Your task to perform on an android device: Play the last video I watched on Youtube Image 0: 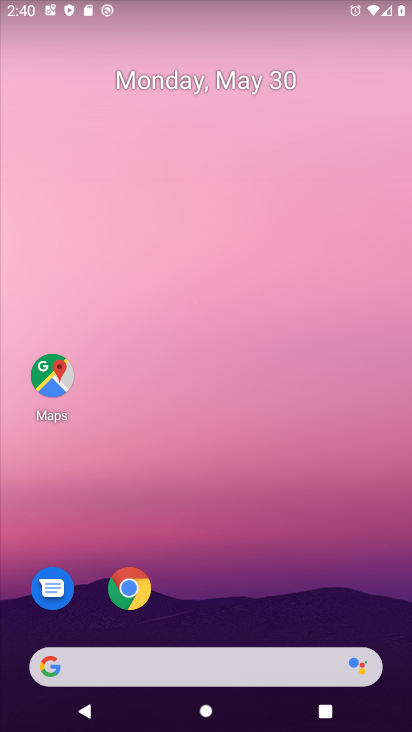
Step 0: drag from (271, 623) to (290, 34)
Your task to perform on an android device: Play the last video I watched on Youtube Image 1: 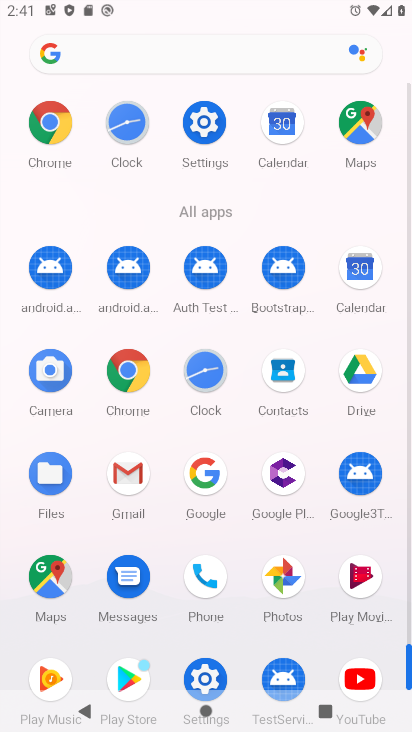
Step 1: drag from (255, 364) to (249, 56)
Your task to perform on an android device: Play the last video I watched on Youtube Image 2: 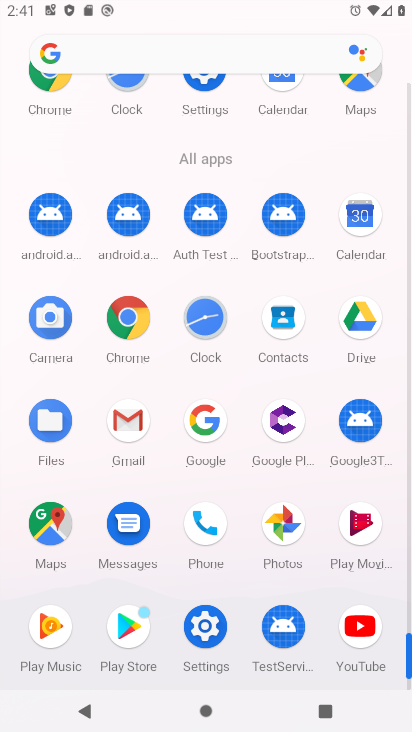
Step 2: click (353, 637)
Your task to perform on an android device: Play the last video I watched on Youtube Image 3: 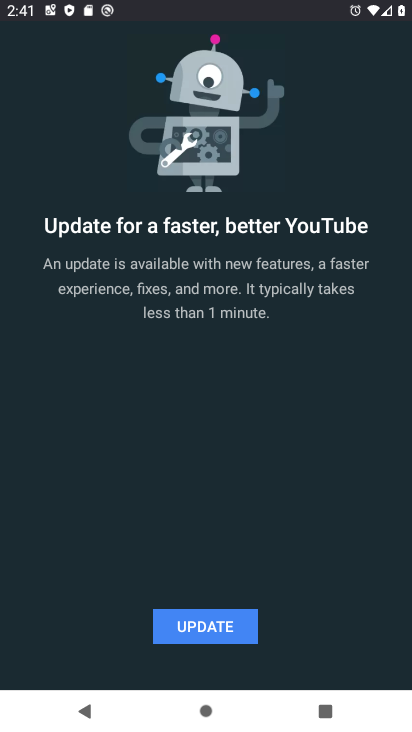
Step 3: click (227, 654)
Your task to perform on an android device: Play the last video I watched on Youtube Image 4: 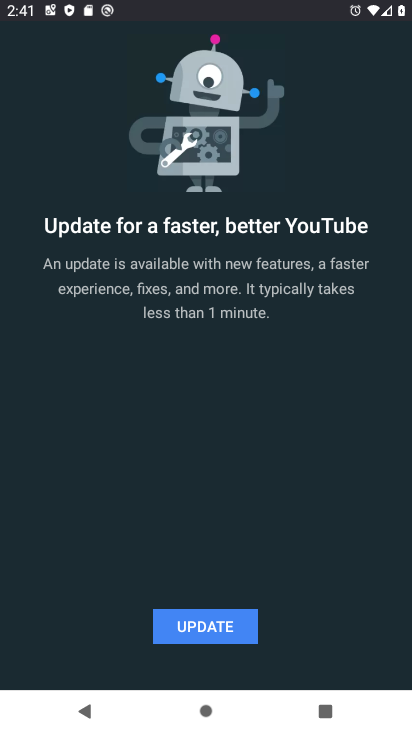
Step 4: click (209, 633)
Your task to perform on an android device: Play the last video I watched on Youtube Image 5: 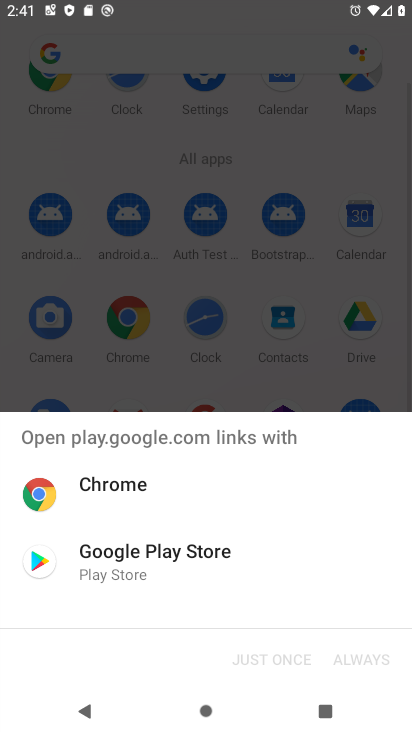
Step 5: click (117, 571)
Your task to perform on an android device: Play the last video I watched on Youtube Image 6: 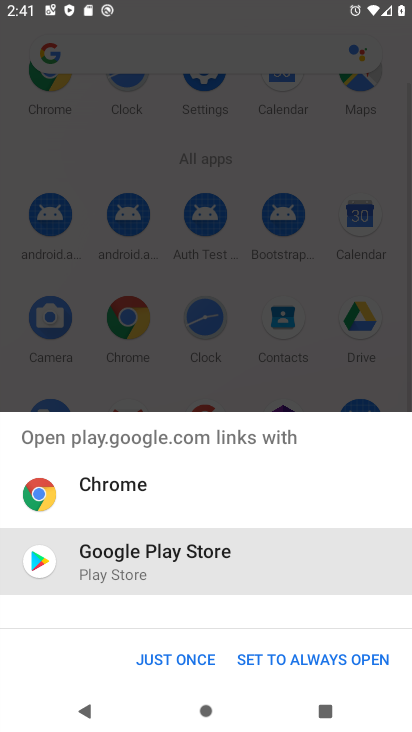
Step 6: drag from (159, 663) to (224, 663)
Your task to perform on an android device: Play the last video I watched on Youtube Image 7: 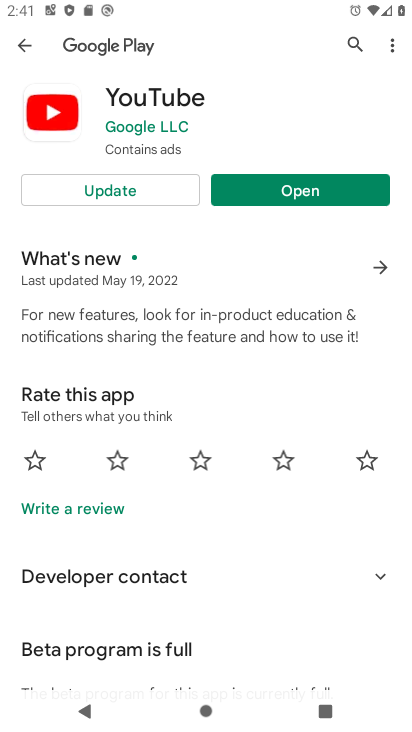
Step 7: click (149, 181)
Your task to perform on an android device: Play the last video I watched on Youtube Image 8: 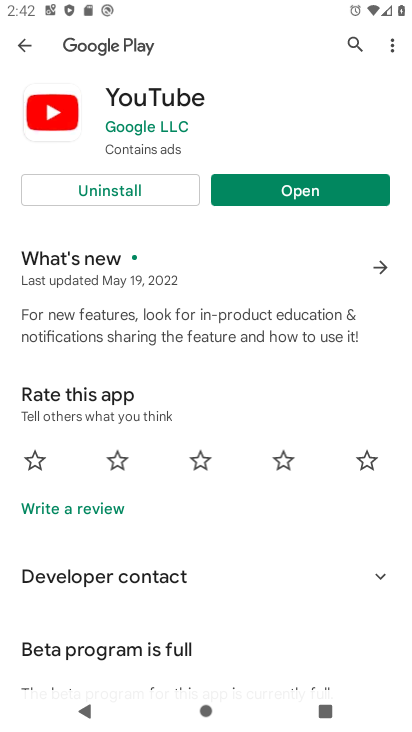
Step 8: click (294, 203)
Your task to perform on an android device: Play the last video I watched on Youtube Image 9: 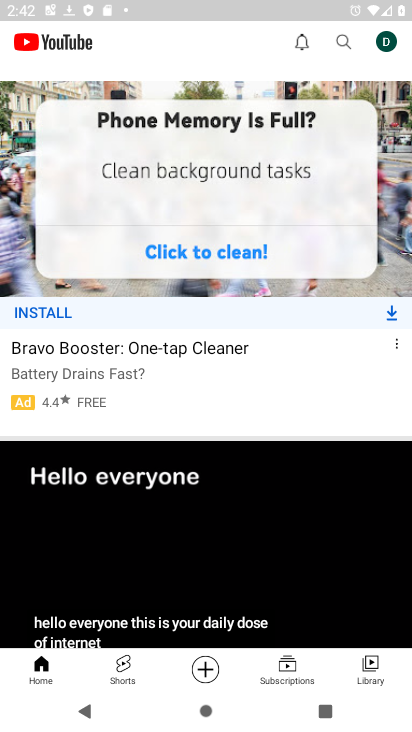
Step 9: click (371, 670)
Your task to perform on an android device: Play the last video I watched on Youtube Image 10: 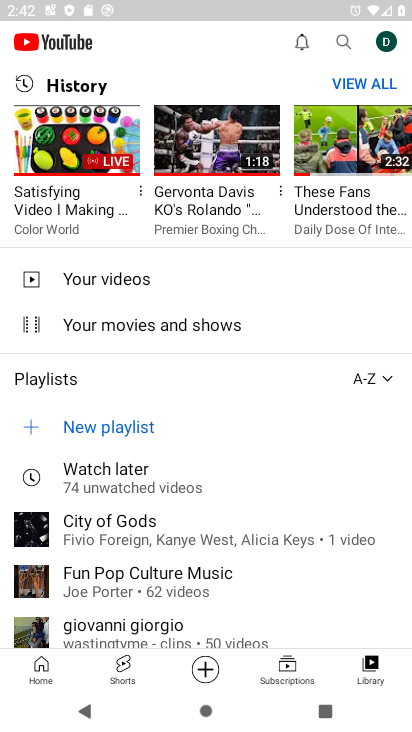
Step 10: click (92, 160)
Your task to perform on an android device: Play the last video I watched on Youtube Image 11: 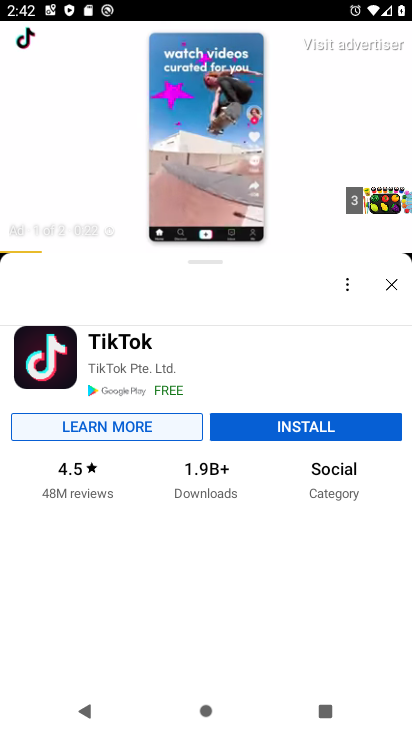
Step 11: task complete